Your task to perform on an android device: check data usage Image 0: 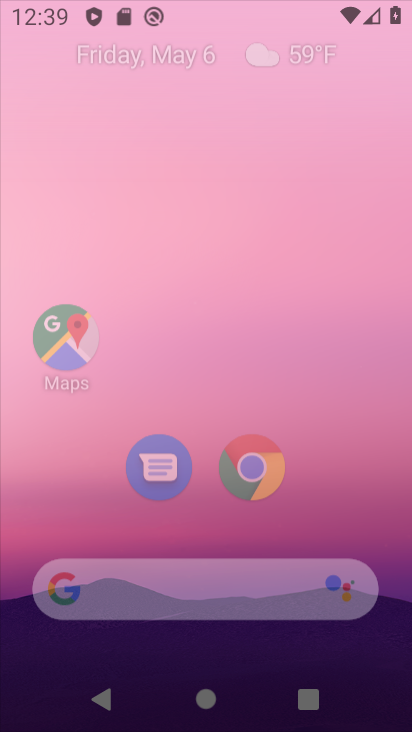
Step 0: click (275, 515)
Your task to perform on an android device: check data usage Image 1: 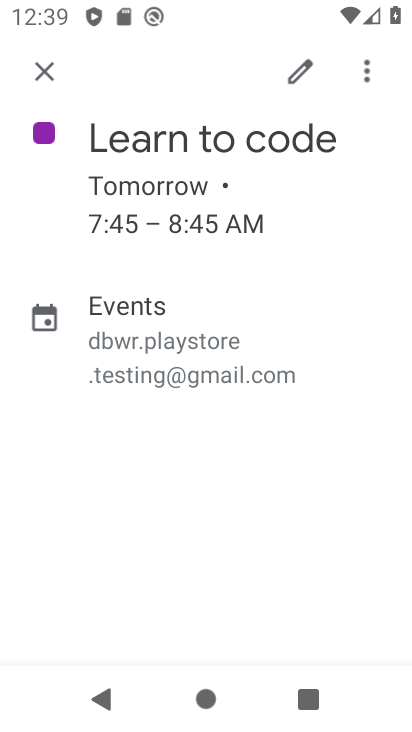
Step 1: press home button
Your task to perform on an android device: check data usage Image 2: 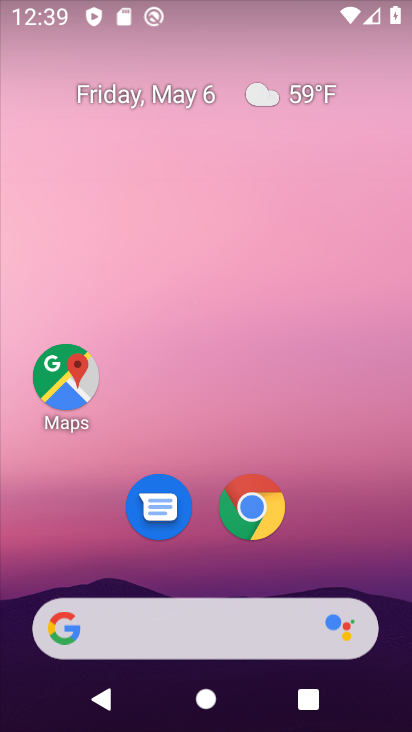
Step 2: drag from (163, 599) to (276, 28)
Your task to perform on an android device: check data usage Image 3: 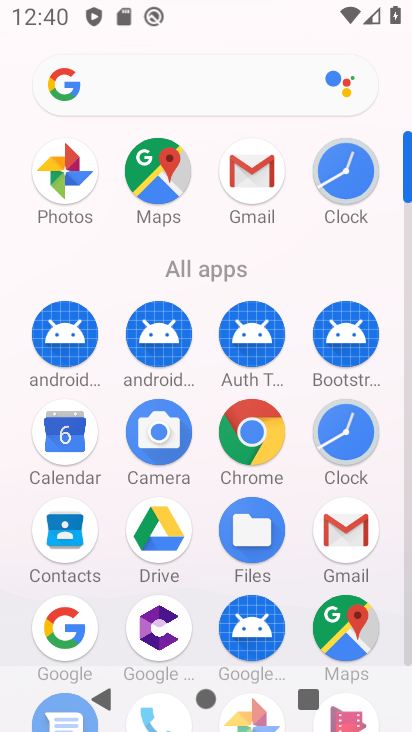
Step 3: drag from (155, 632) to (246, 244)
Your task to perform on an android device: check data usage Image 4: 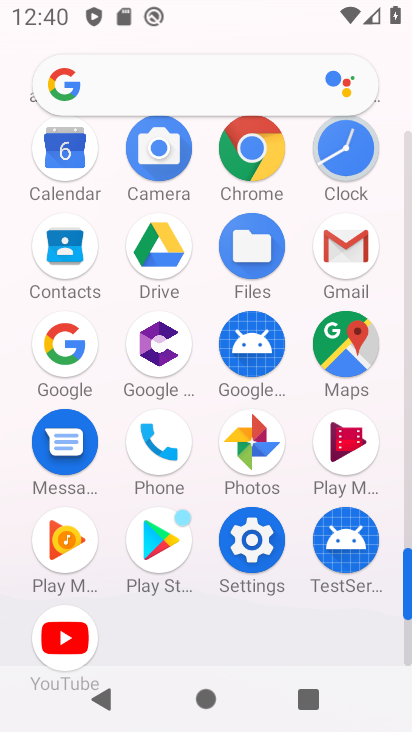
Step 4: click (250, 534)
Your task to perform on an android device: check data usage Image 5: 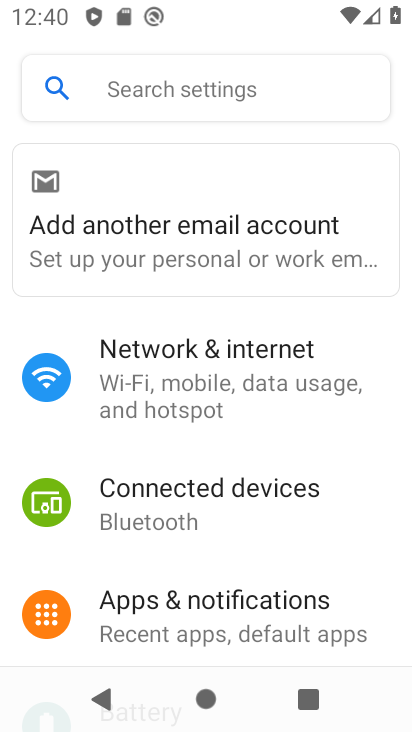
Step 5: click (167, 395)
Your task to perform on an android device: check data usage Image 6: 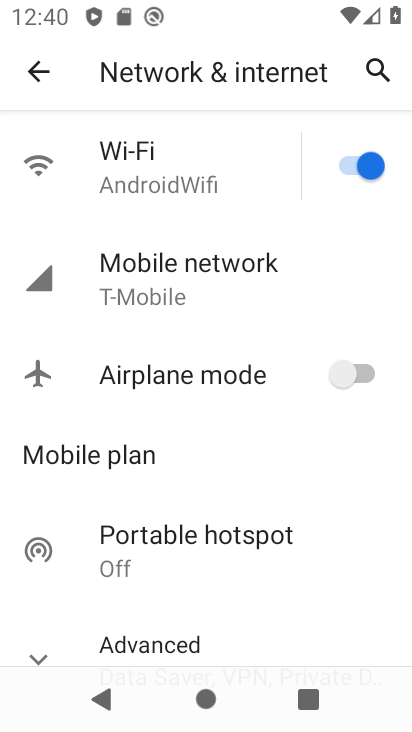
Step 6: click (219, 296)
Your task to perform on an android device: check data usage Image 7: 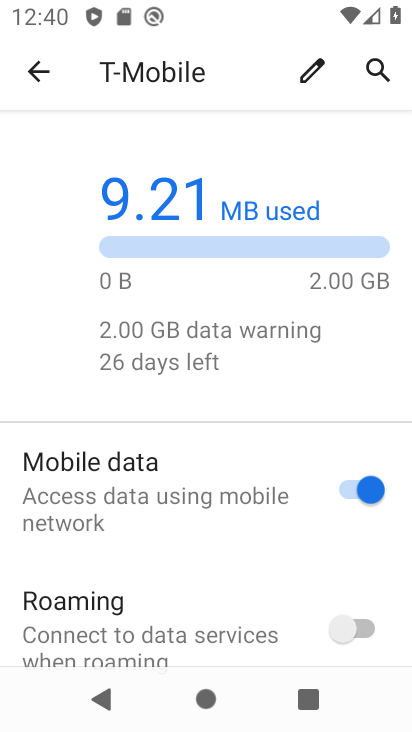
Step 7: drag from (191, 599) to (254, 289)
Your task to perform on an android device: check data usage Image 8: 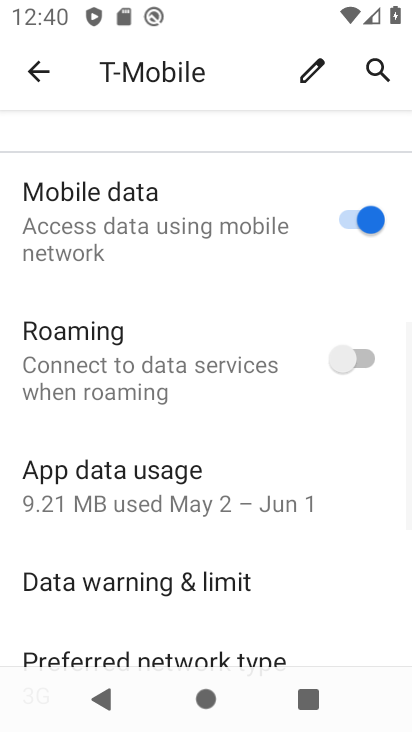
Step 8: click (191, 524)
Your task to perform on an android device: check data usage Image 9: 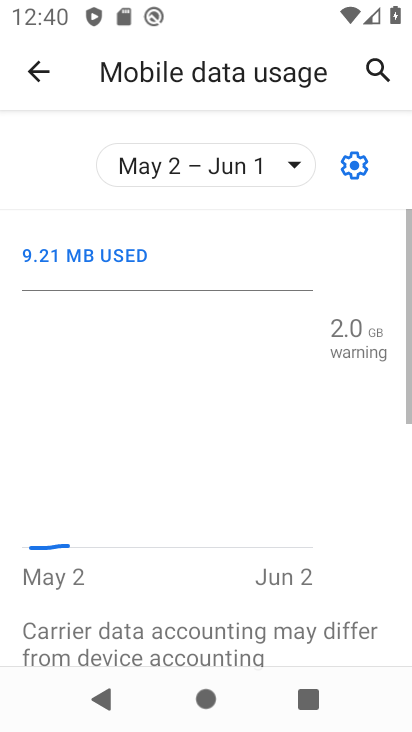
Step 9: task complete